Your task to perform on an android device: manage bookmarks in the chrome app Image 0: 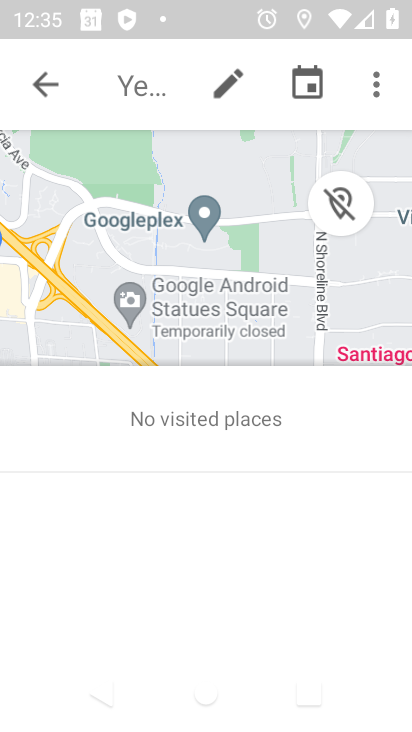
Step 0: press back button
Your task to perform on an android device: manage bookmarks in the chrome app Image 1: 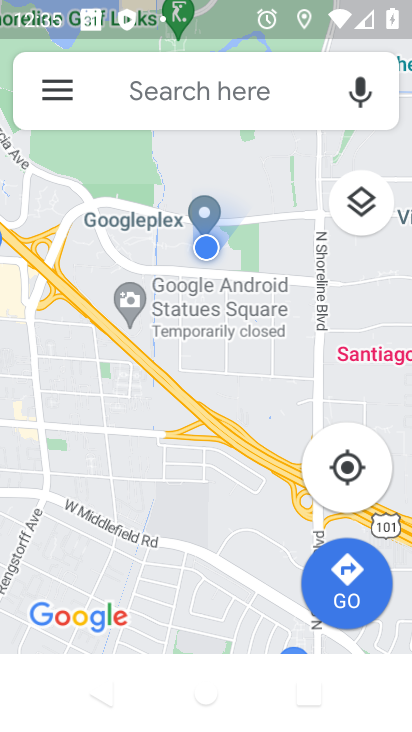
Step 1: press back button
Your task to perform on an android device: manage bookmarks in the chrome app Image 2: 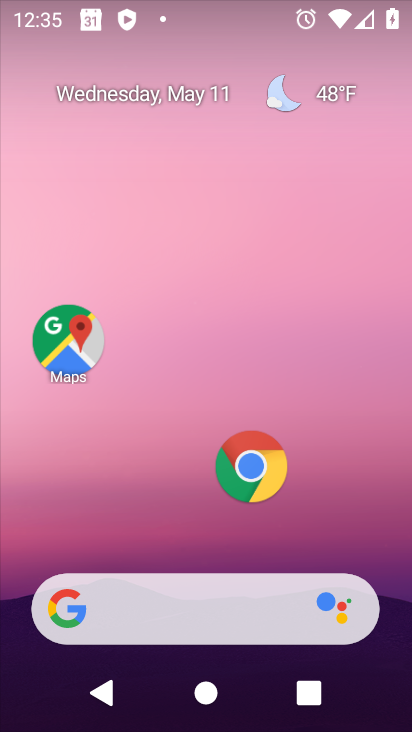
Step 2: click (253, 459)
Your task to perform on an android device: manage bookmarks in the chrome app Image 3: 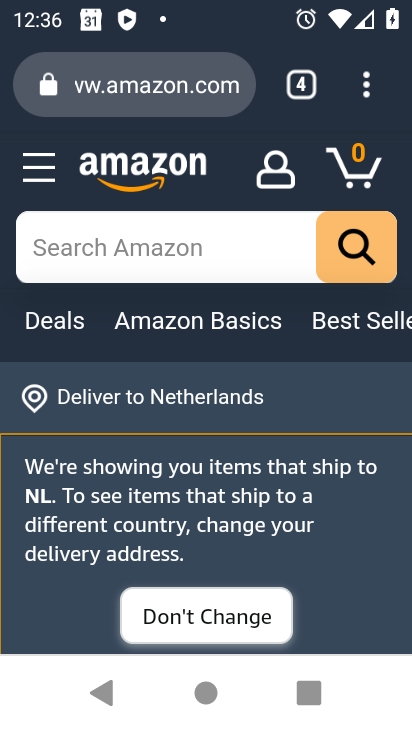
Step 3: drag from (368, 82) to (127, 320)
Your task to perform on an android device: manage bookmarks in the chrome app Image 4: 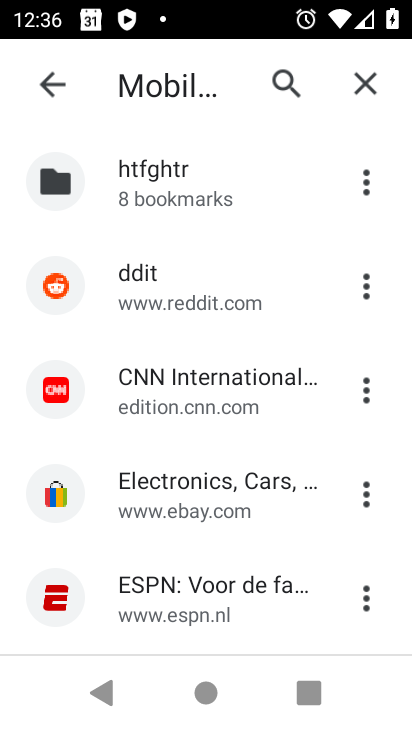
Step 4: click (370, 282)
Your task to perform on an android device: manage bookmarks in the chrome app Image 5: 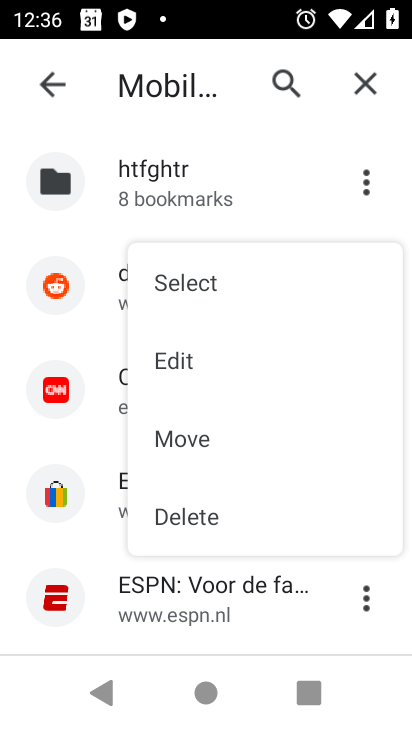
Step 5: click (182, 521)
Your task to perform on an android device: manage bookmarks in the chrome app Image 6: 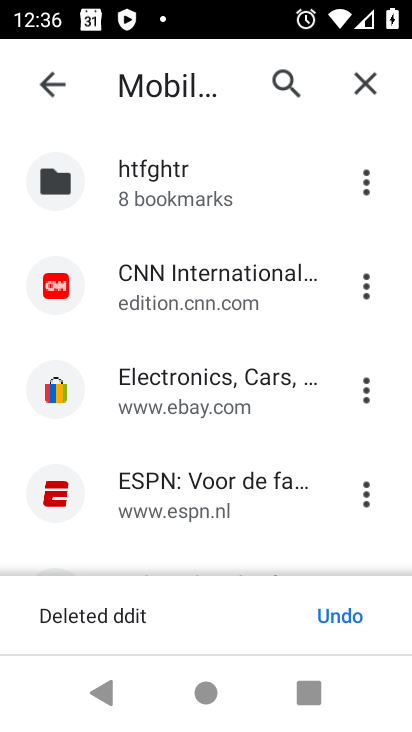
Step 6: task complete